Your task to perform on an android device: stop showing notifications on the lock screen Image 0: 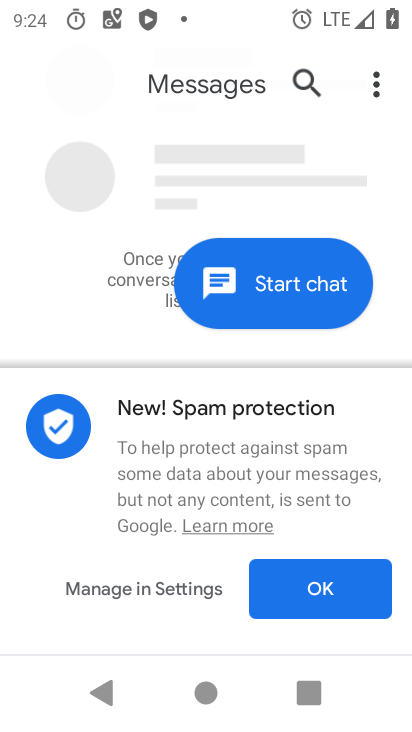
Step 0: press home button
Your task to perform on an android device: stop showing notifications on the lock screen Image 1: 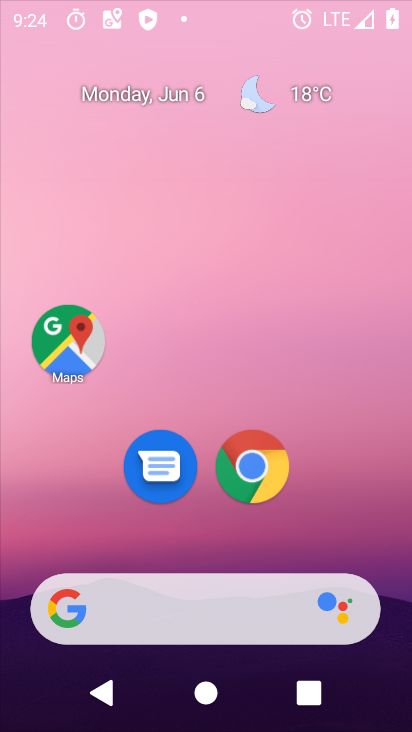
Step 1: drag from (206, 548) to (217, 23)
Your task to perform on an android device: stop showing notifications on the lock screen Image 2: 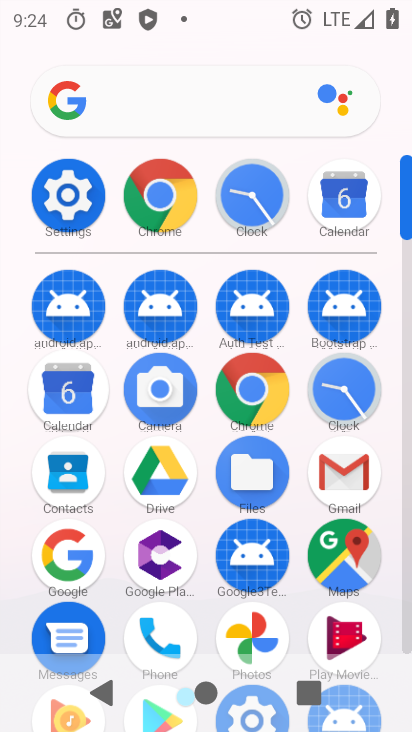
Step 2: click (73, 185)
Your task to perform on an android device: stop showing notifications on the lock screen Image 3: 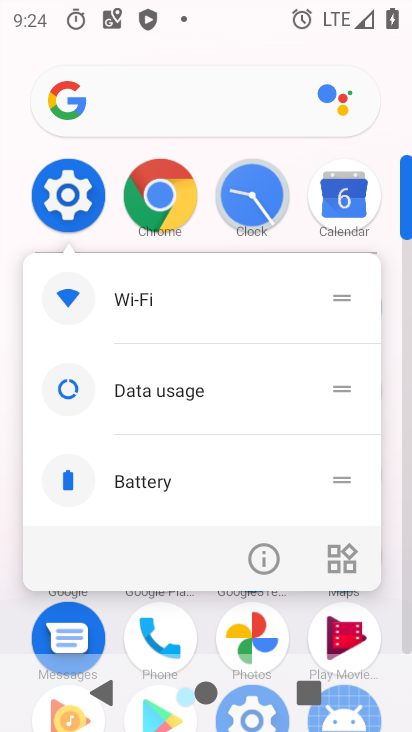
Step 3: click (278, 560)
Your task to perform on an android device: stop showing notifications on the lock screen Image 4: 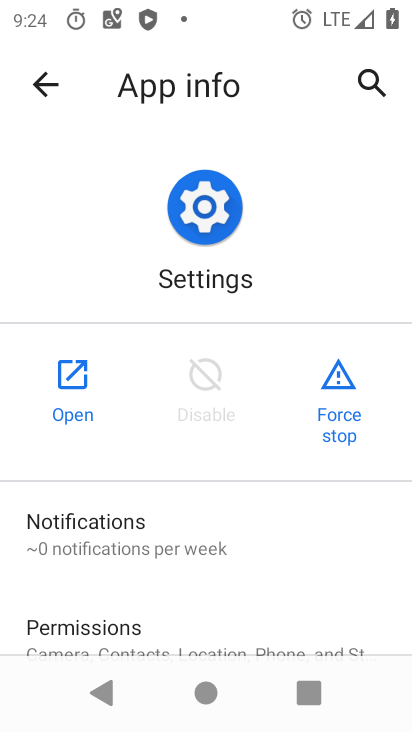
Step 4: click (72, 375)
Your task to perform on an android device: stop showing notifications on the lock screen Image 5: 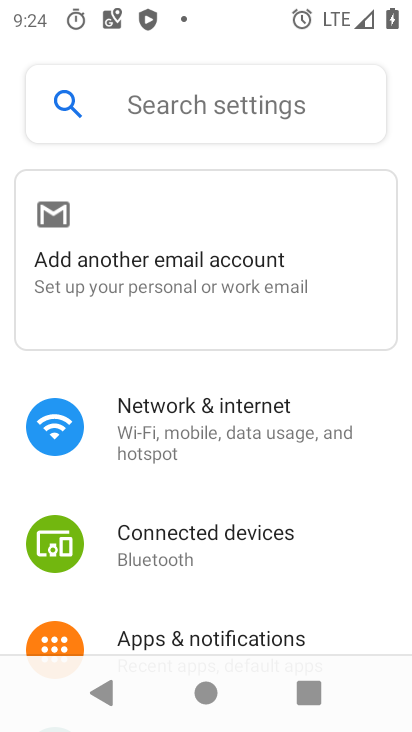
Step 5: drag from (237, 563) to (259, 0)
Your task to perform on an android device: stop showing notifications on the lock screen Image 6: 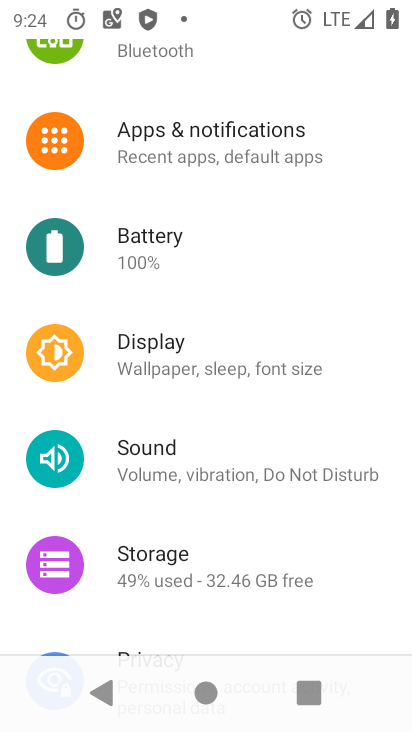
Step 6: click (198, 149)
Your task to perform on an android device: stop showing notifications on the lock screen Image 7: 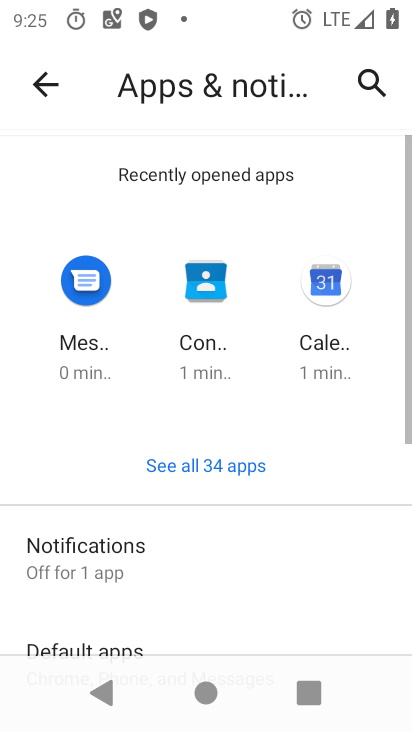
Step 7: click (139, 553)
Your task to perform on an android device: stop showing notifications on the lock screen Image 8: 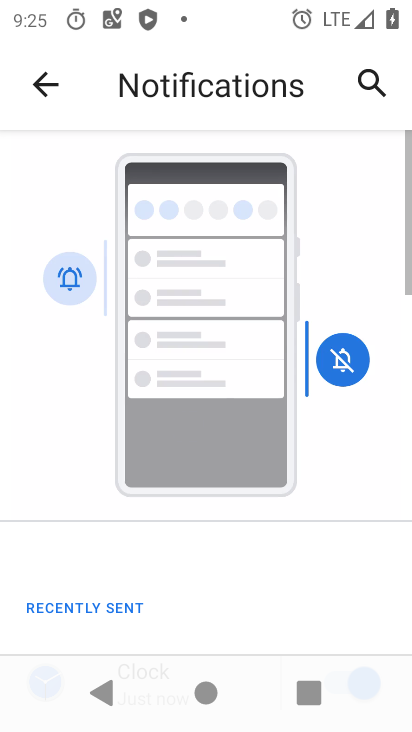
Step 8: drag from (163, 510) to (275, 60)
Your task to perform on an android device: stop showing notifications on the lock screen Image 9: 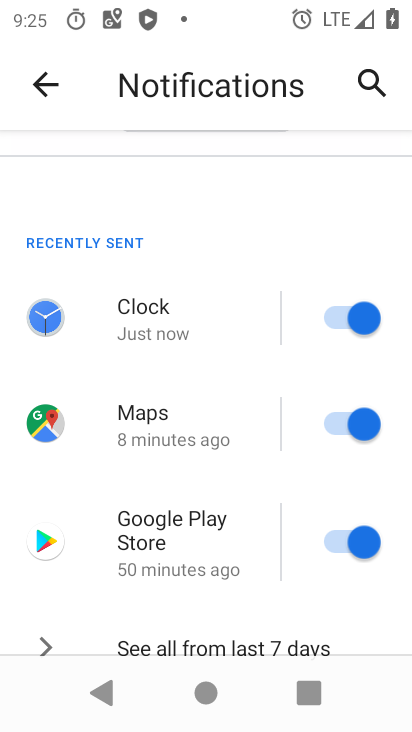
Step 9: drag from (209, 477) to (299, 0)
Your task to perform on an android device: stop showing notifications on the lock screen Image 10: 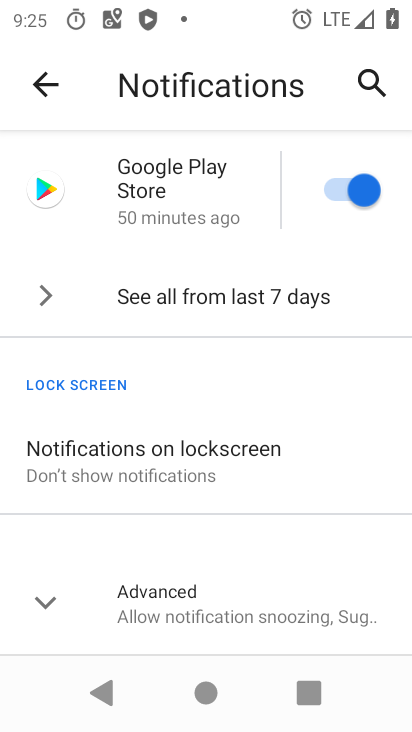
Step 10: click (149, 493)
Your task to perform on an android device: stop showing notifications on the lock screen Image 11: 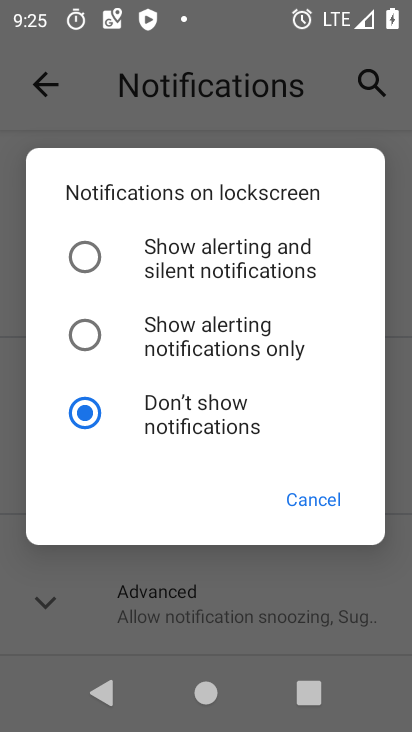
Step 11: click (185, 394)
Your task to perform on an android device: stop showing notifications on the lock screen Image 12: 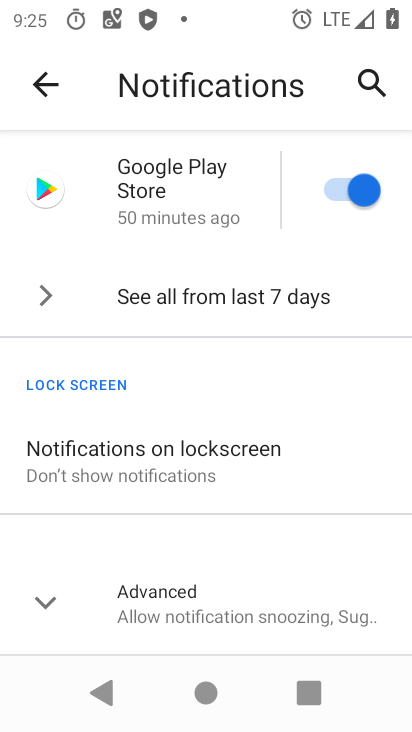
Step 12: task complete